Your task to perform on an android device: Open calendar and show me the fourth week of next month Image 0: 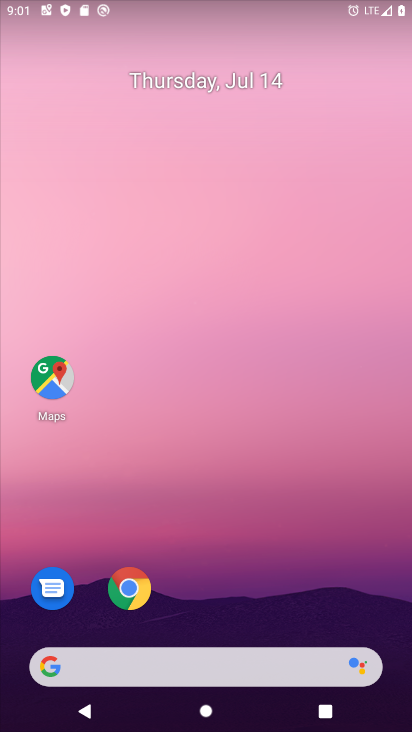
Step 0: drag from (316, 613) to (410, 160)
Your task to perform on an android device: Open calendar and show me the fourth week of next month Image 1: 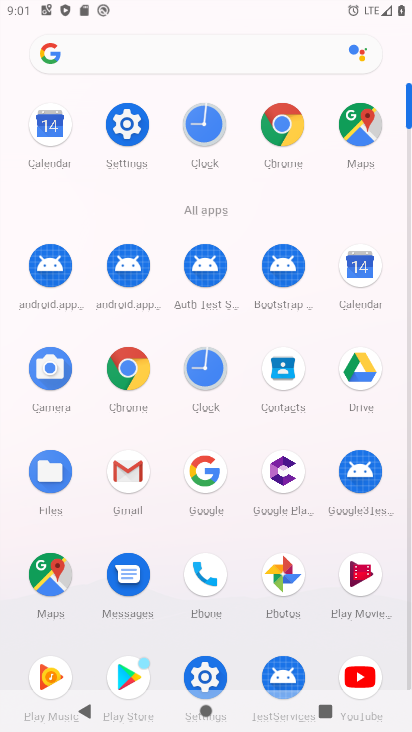
Step 1: click (355, 299)
Your task to perform on an android device: Open calendar and show me the fourth week of next month Image 2: 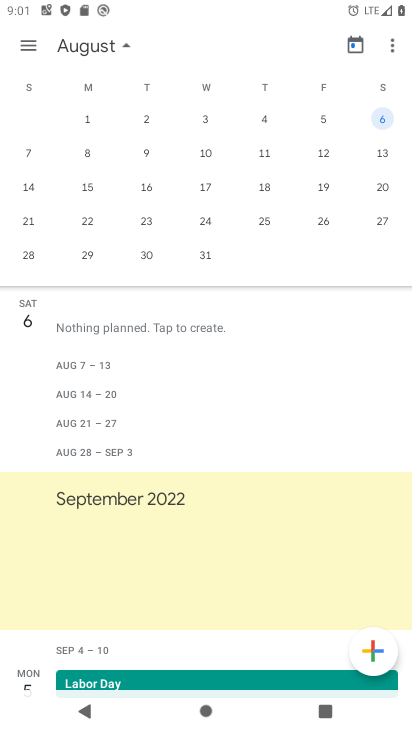
Step 2: drag from (351, 201) to (23, 109)
Your task to perform on an android device: Open calendar and show me the fourth week of next month Image 3: 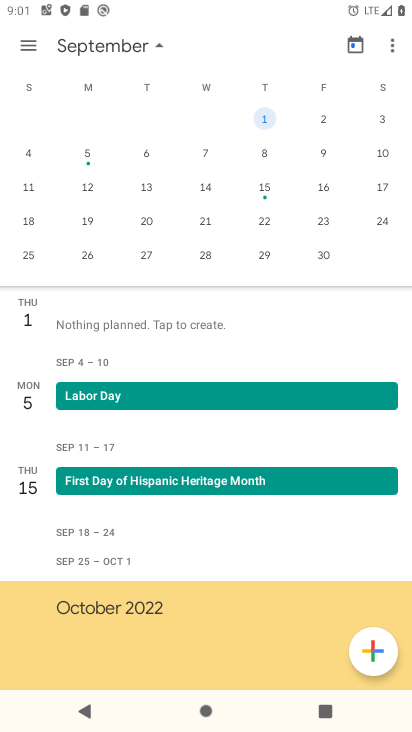
Step 3: click (200, 254)
Your task to perform on an android device: Open calendar and show me the fourth week of next month Image 4: 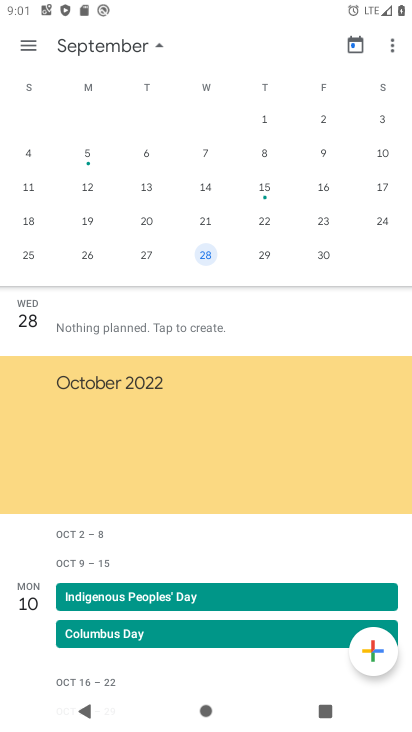
Step 4: task complete